Your task to perform on an android device: Play the last video I watched on Youtube Image 0: 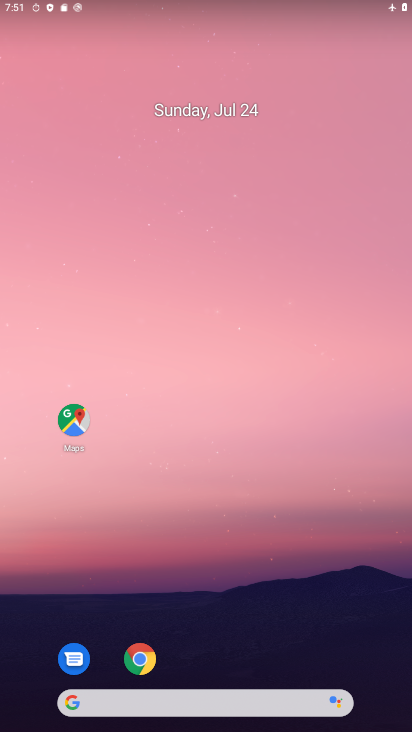
Step 0: click (273, 86)
Your task to perform on an android device: Play the last video I watched on Youtube Image 1: 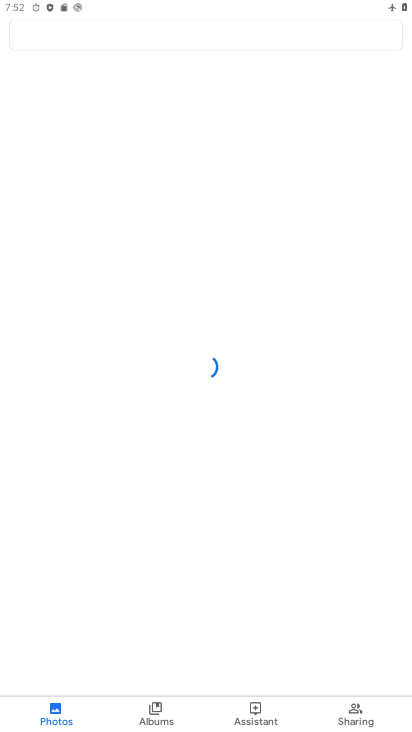
Step 1: drag from (241, 700) to (235, 129)
Your task to perform on an android device: Play the last video I watched on Youtube Image 2: 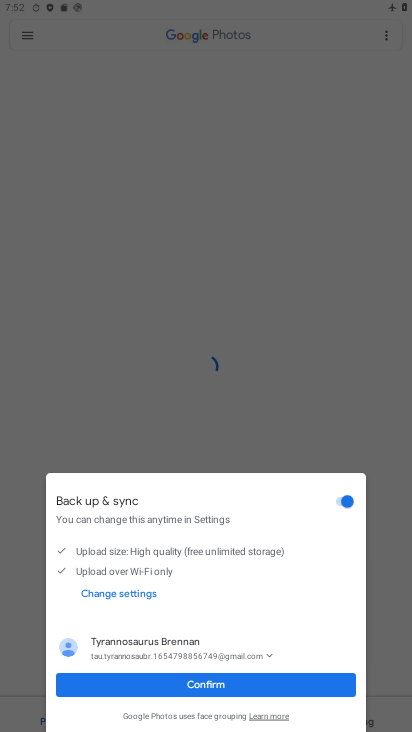
Step 2: press back button
Your task to perform on an android device: Play the last video I watched on Youtube Image 3: 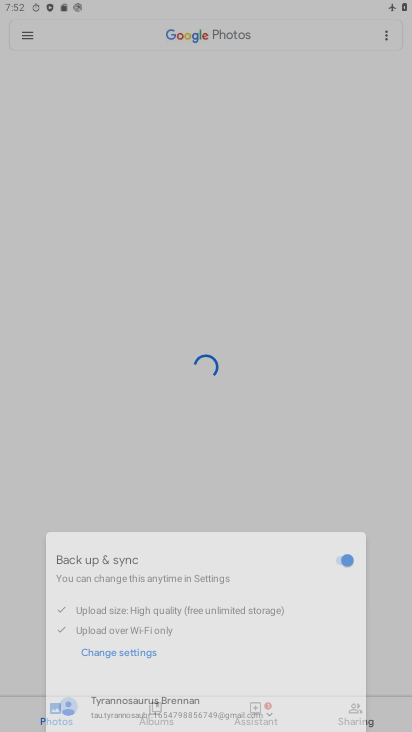
Step 3: press back button
Your task to perform on an android device: Play the last video I watched on Youtube Image 4: 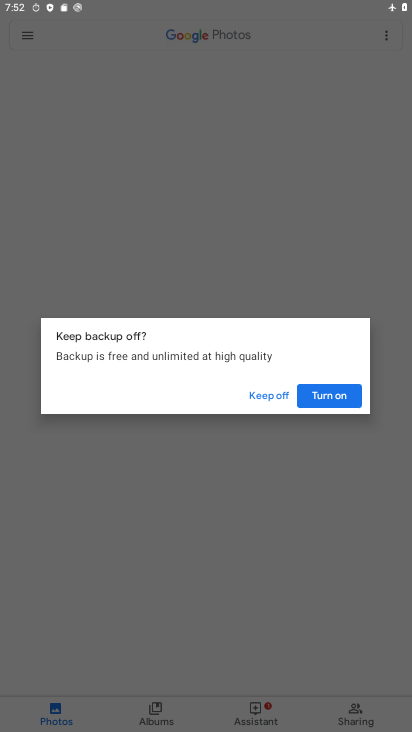
Step 4: click (272, 399)
Your task to perform on an android device: Play the last video I watched on Youtube Image 5: 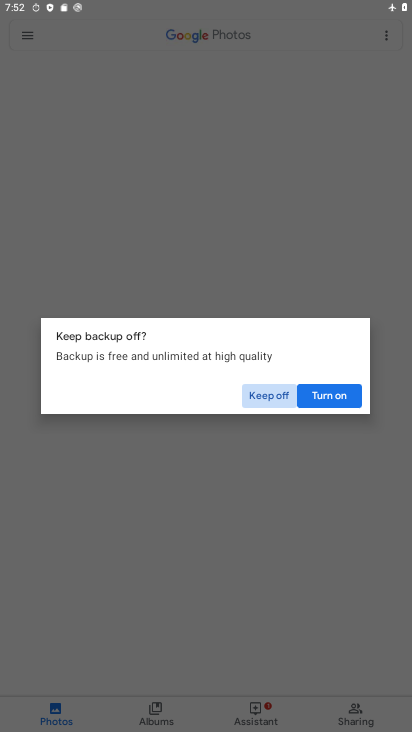
Step 5: click (272, 399)
Your task to perform on an android device: Play the last video I watched on Youtube Image 6: 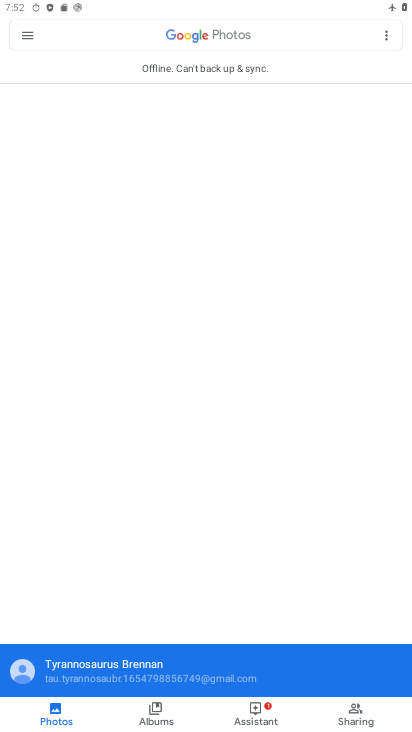
Step 6: click (270, 400)
Your task to perform on an android device: Play the last video I watched on Youtube Image 7: 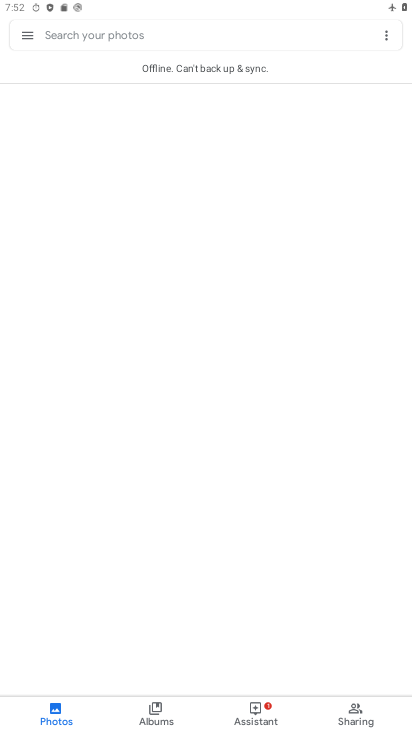
Step 7: press back button
Your task to perform on an android device: Play the last video I watched on Youtube Image 8: 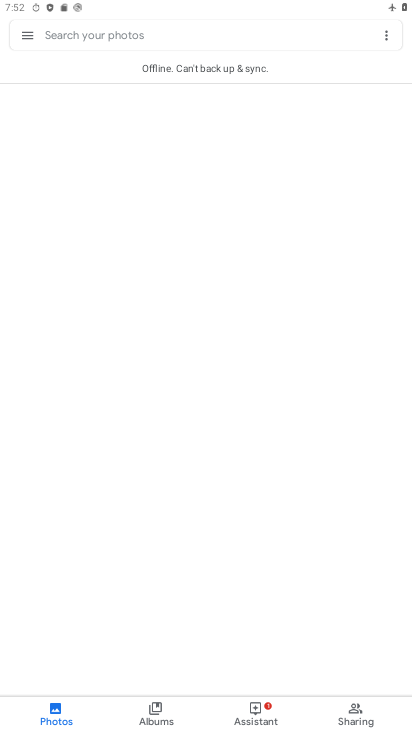
Step 8: press back button
Your task to perform on an android device: Play the last video I watched on Youtube Image 9: 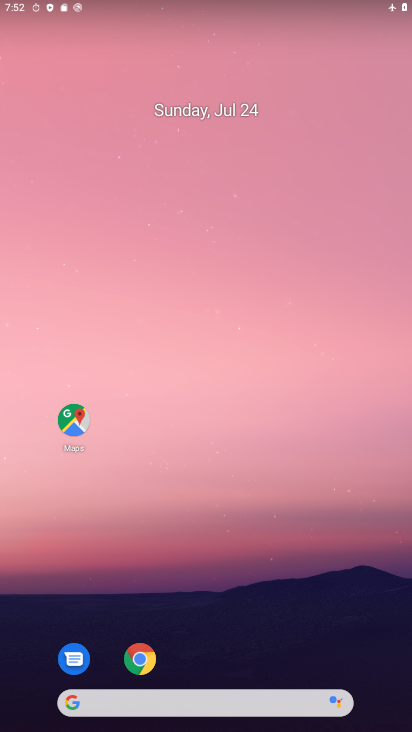
Step 9: drag from (221, 676) to (213, 76)
Your task to perform on an android device: Play the last video I watched on Youtube Image 10: 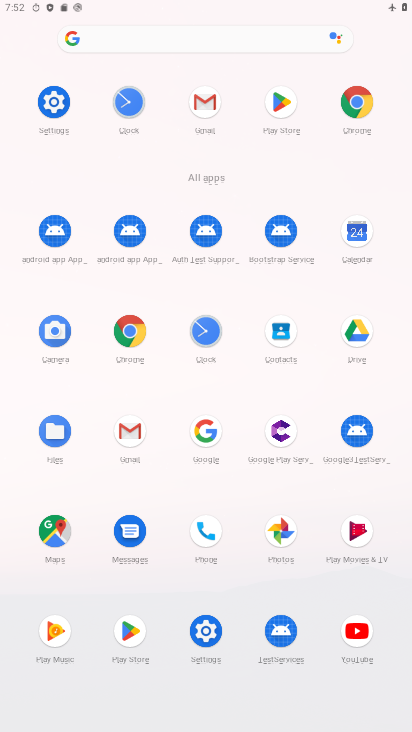
Step 10: click (354, 629)
Your task to perform on an android device: Play the last video I watched on Youtube Image 11: 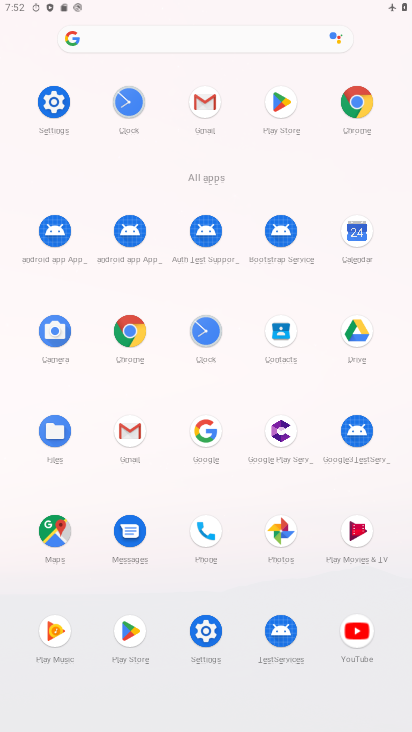
Step 11: click (348, 628)
Your task to perform on an android device: Play the last video I watched on Youtube Image 12: 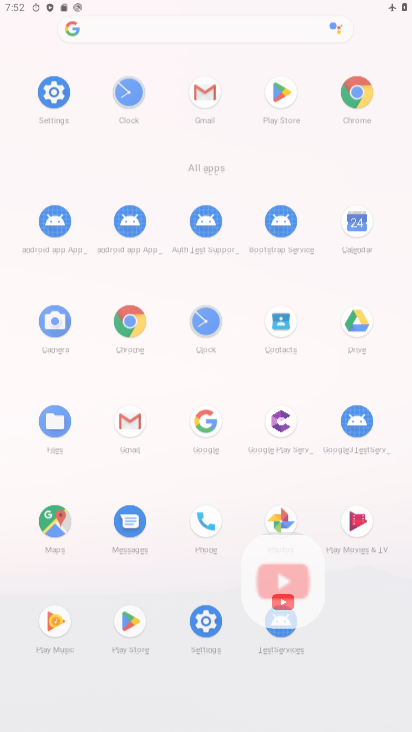
Step 12: click (347, 627)
Your task to perform on an android device: Play the last video I watched on Youtube Image 13: 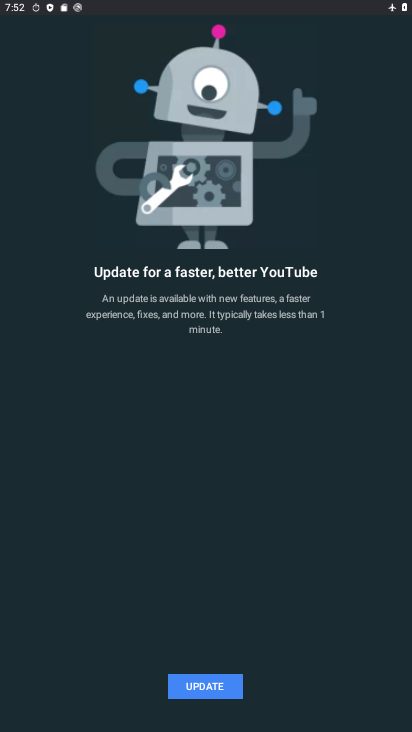
Step 13: click (202, 696)
Your task to perform on an android device: Play the last video I watched on Youtube Image 14: 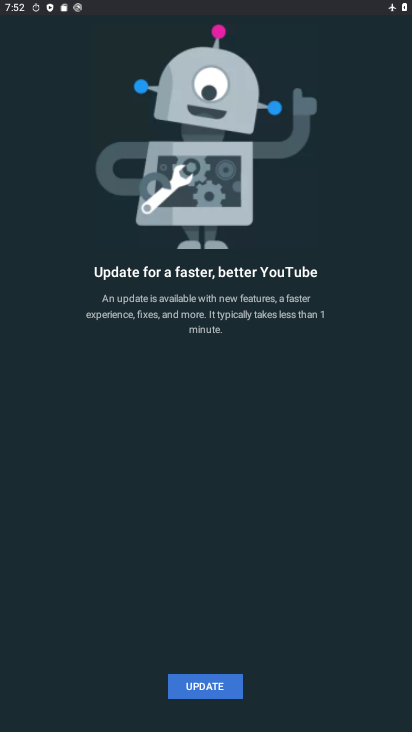
Step 14: click (205, 692)
Your task to perform on an android device: Play the last video I watched on Youtube Image 15: 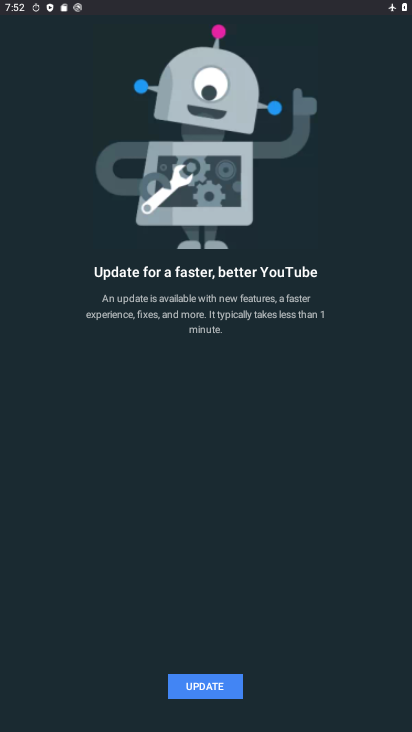
Step 15: click (206, 692)
Your task to perform on an android device: Play the last video I watched on Youtube Image 16: 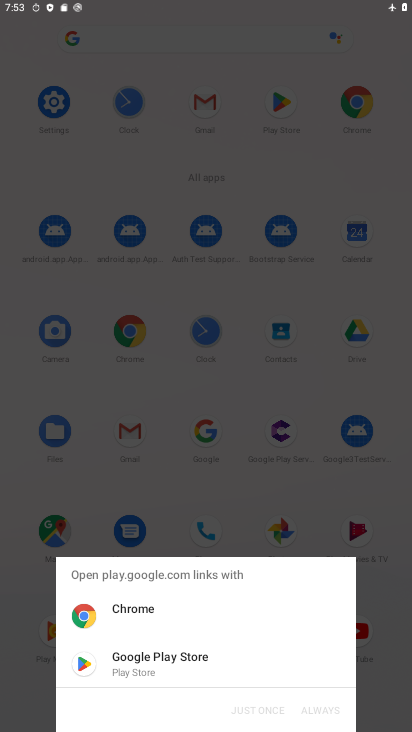
Step 16: click (127, 661)
Your task to perform on an android device: Play the last video I watched on Youtube Image 17: 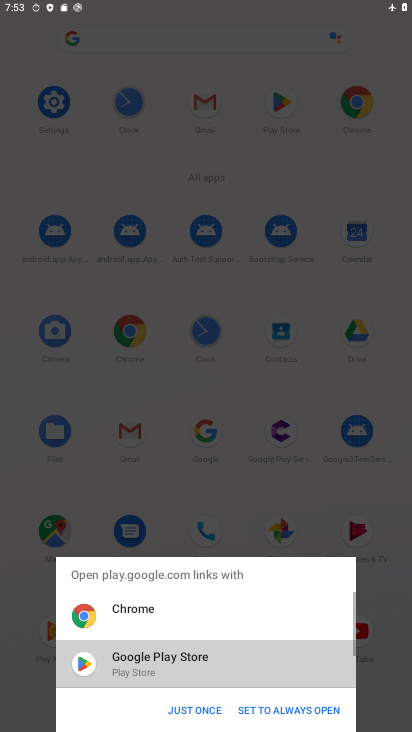
Step 17: click (138, 659)
Your task to perform on an android device: Play the last video I watched on Youtube Image 18: 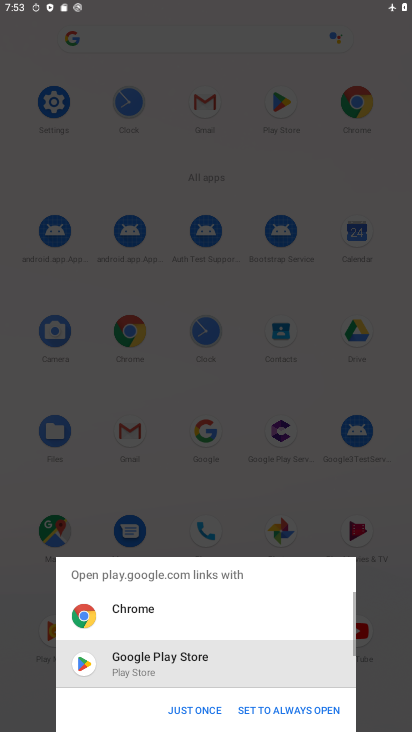
Step 18: click (152, 656)
Your task to perform on an android device: Play the last video I watched on Youtube Image 19: 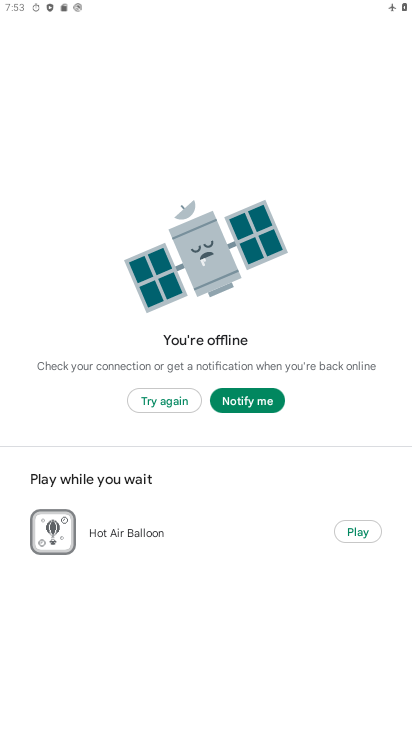
Step 19: task complete